Your task to perform on an android device: Open wifi settings Image 0: 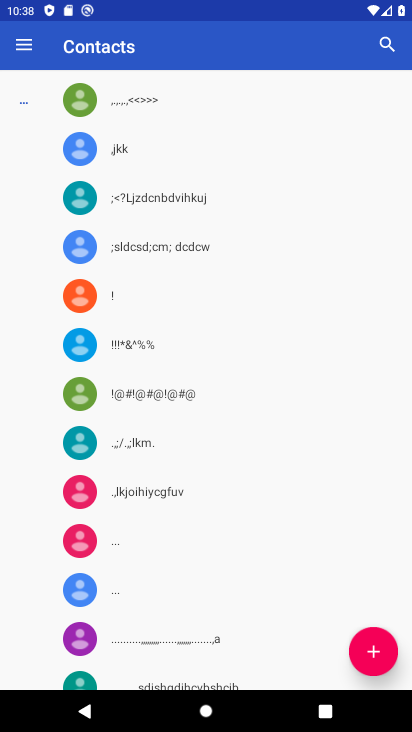
Step 0: press home button
Your task to perform on an android device: Open wifi settings Image 1: 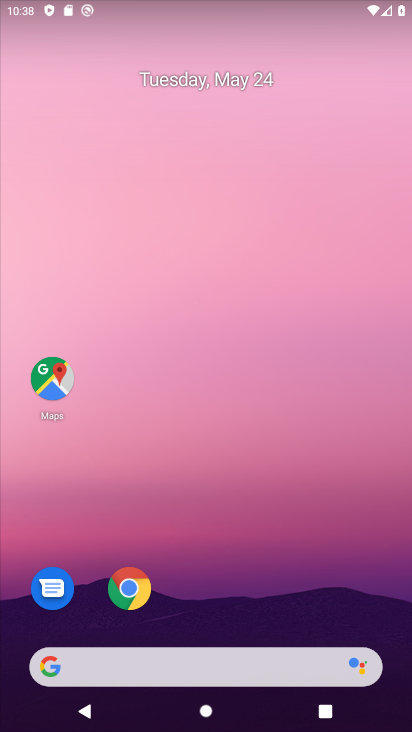
Step 1: drag from (224, 626) to (227, 162)
Your task to perform on an android device: Open wifi settings Image 2: 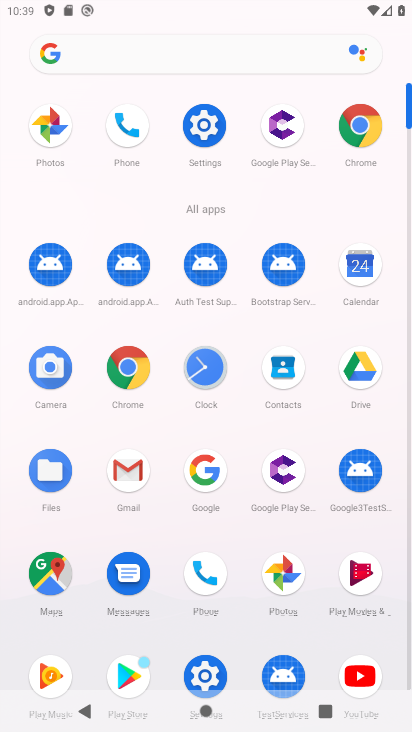
Step 2: click (206, 143)
Your task to perform on an android device: Open wifi settings Image 3: 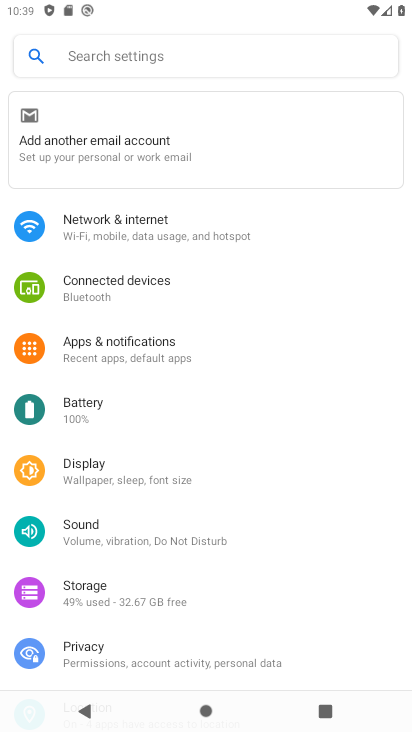
Step 3: click (193, 228)
Your task to perform on an android device: Open wifi settings Image 4: 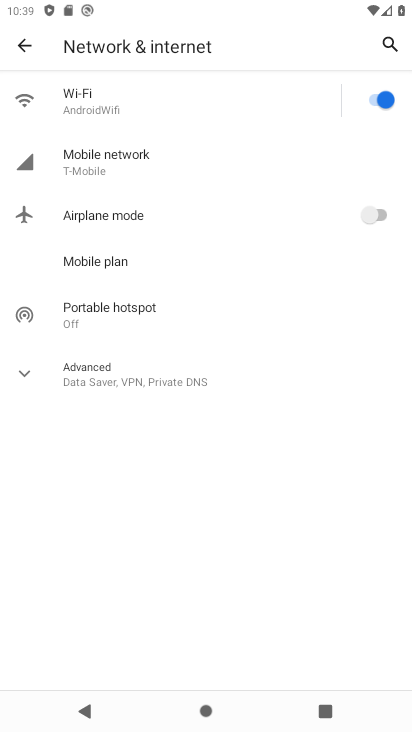
Step 4: click (166, 100)
Your task to perform on an android device: Open wifi settings Image 5: 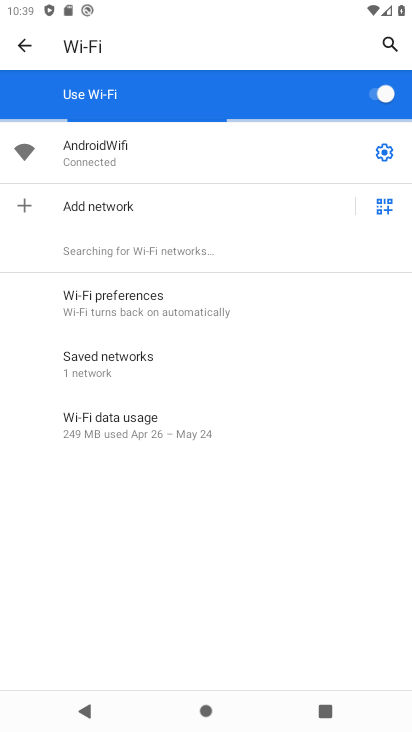
Step 5: task complete